Your task to perform on an android device: turn on the 12-hour format for clock Image 0: 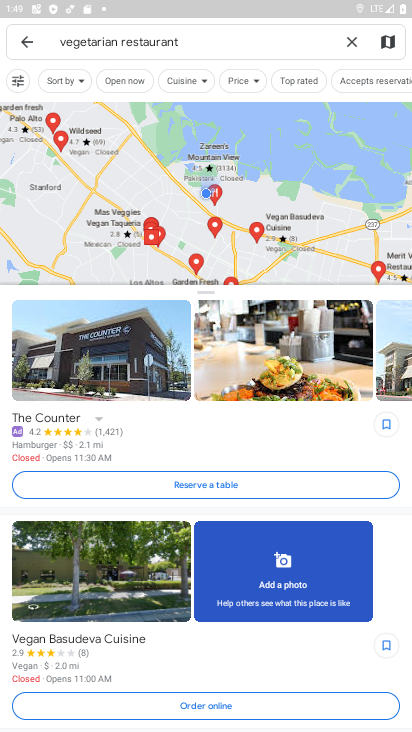
Step 0: press home button
Your task to perform on an android device: turn on the 12-hour format for clock Image 1: 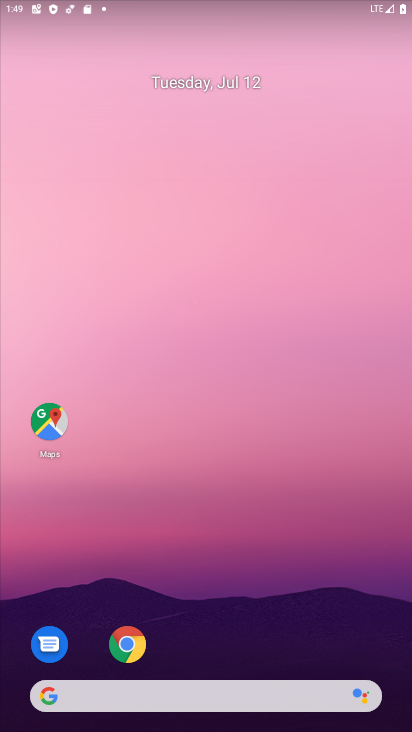
Step 1: drag from (202, 664) to (163, 7)
Your task to perform on an android device: turn on the 12-hour format for clock Image 2: 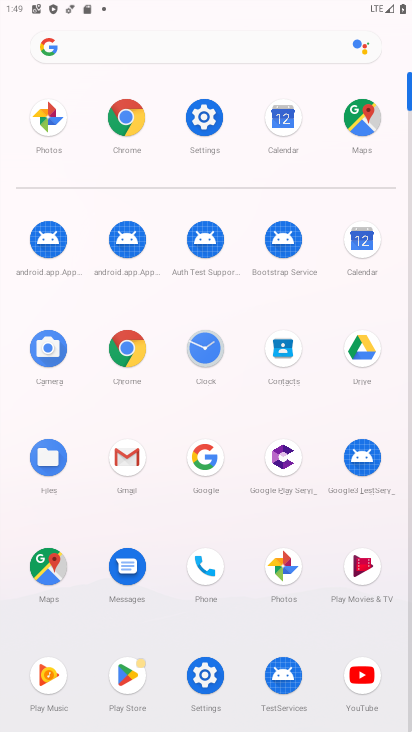
Step 2: click (216, 344)
Your task to perform on an android device: turn on the 12-hour format for clock Image 3: 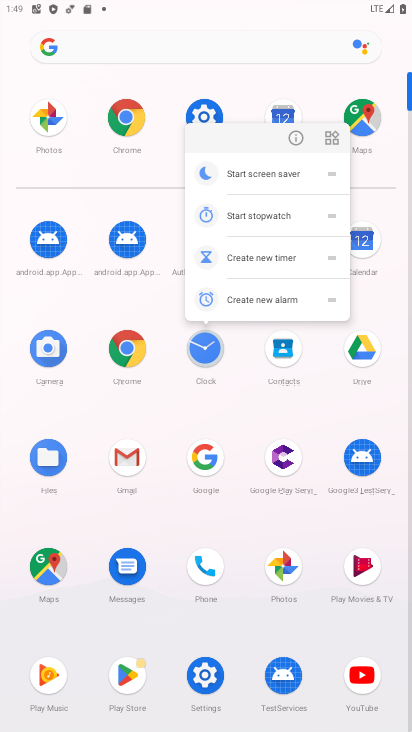
Step 3: click (205, 352)
Your task to perform on an android device: turn on the 12-hour format for clock Image 4: 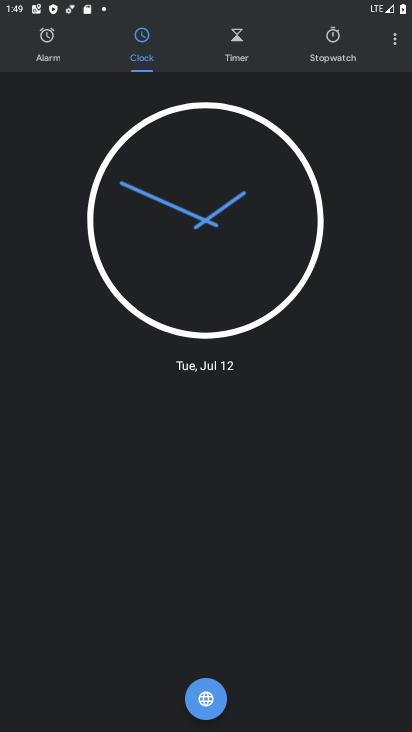
Step 4: drag from (394, 44) to (317, 82)
Your task to perform on an android device: turn on the 12-hour format for clock Image 5: 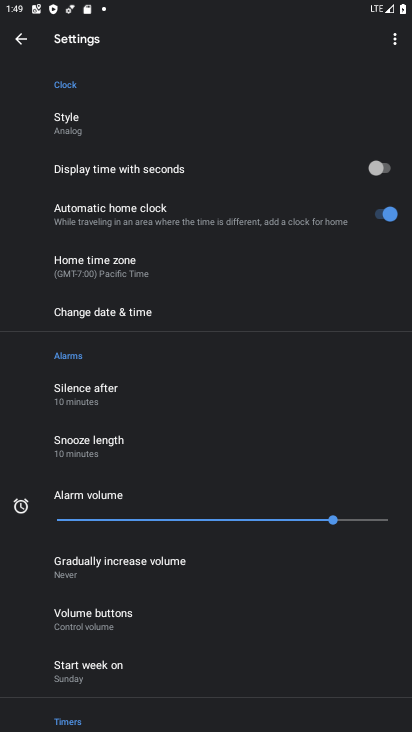
Step 5: drag from (132, 646) to (78, 278)
Your task to perform on an android device: turn on the 12-hour format for clock Image 6: 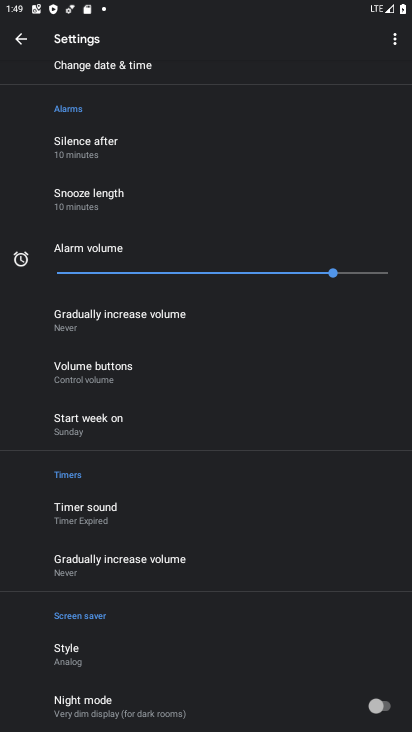
Step 6: click (65, 66)
Your task to perform on an android device: turn on the 12-hour format for clock Image 7: 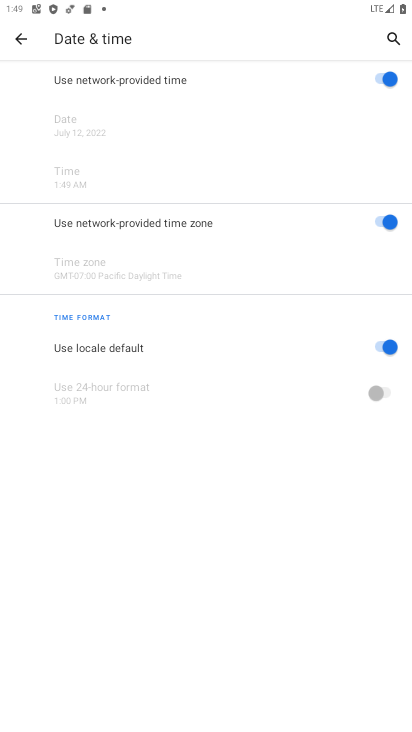
Step 7: task complete